Your task to perform on an android device: Add "usb-c" to the cart on bestbuy, then select checkout. Image 0: 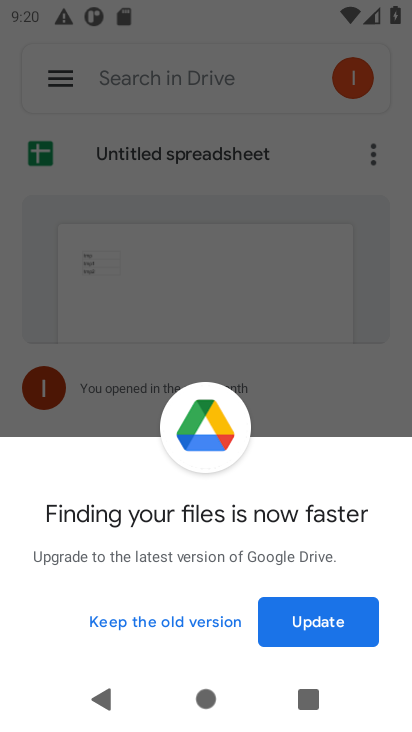
Step 0: press home button
Your task to perform on an android device: Add "usb-c" to the cart on bestbuy, then select checkout. Image 1: 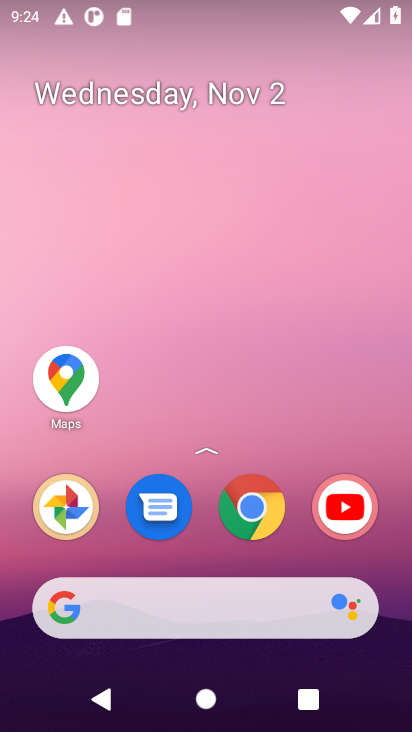
Step 1: task complete